Your task to perform on an android device: star an email in the gmail app Image 0: 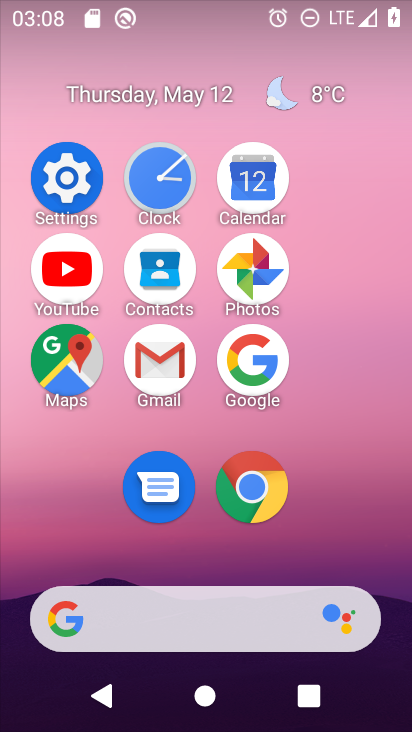
Step 0: click (177, 368)
Your task to perform on an android device: star an email in the gmail app Image 1: 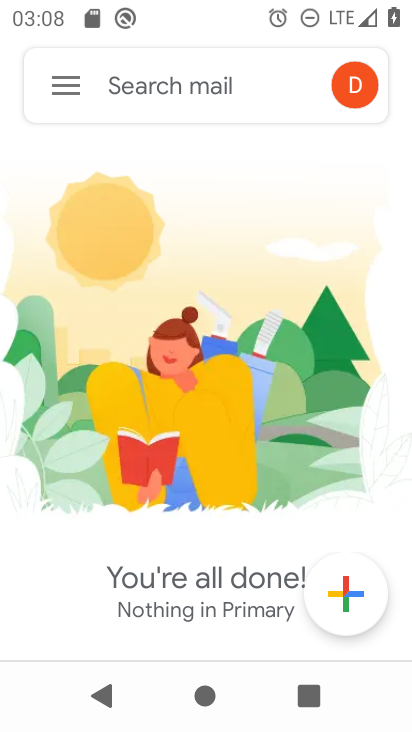
Step 1: click (56, 70)
Your task to perform on an android device: star an email in the gmail app Image 2: 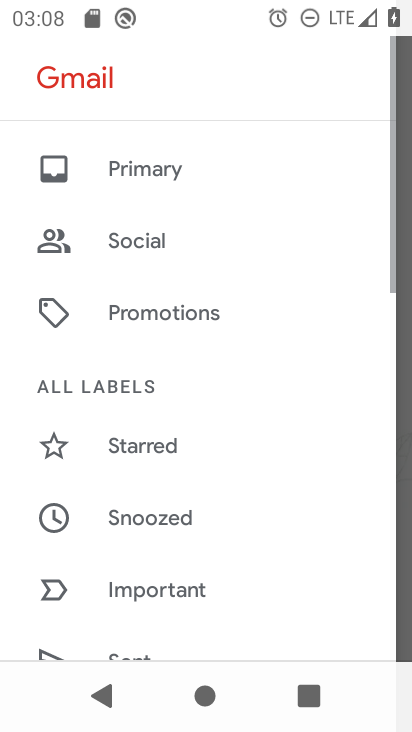
Step 2: drag from (243, 566) to (223, 178)
Your task to perform on an android device: star an email in the gmail app Image 3: 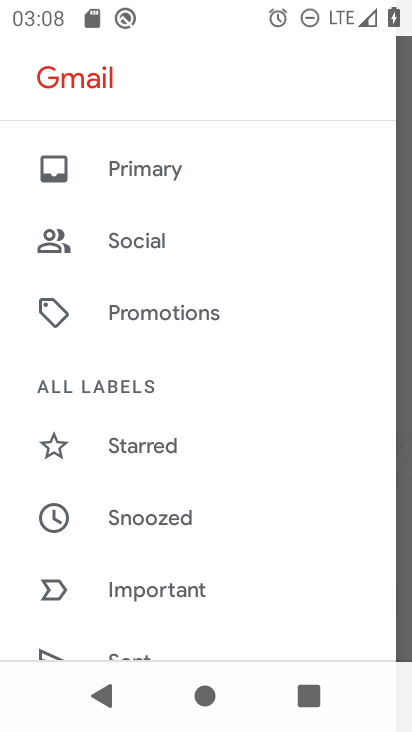
Step 3: drag from (201, 611) to (169, 217)
Your task to perform on an android device: star an email in the gmail app Image 4: 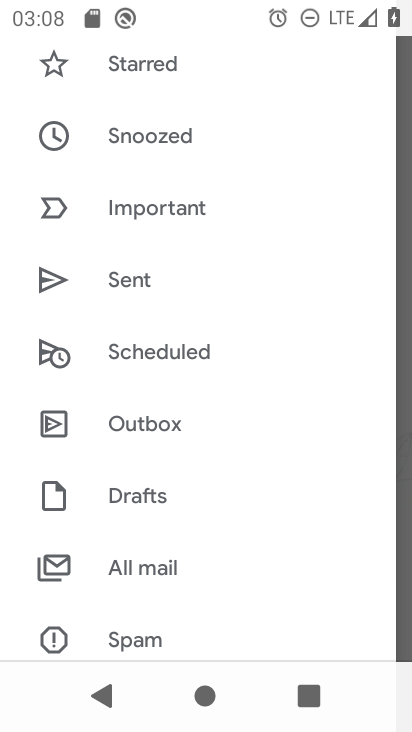
Step 4: click (188, 564)
Your task to perform on an android device: star an email in the gmail app Image 5: 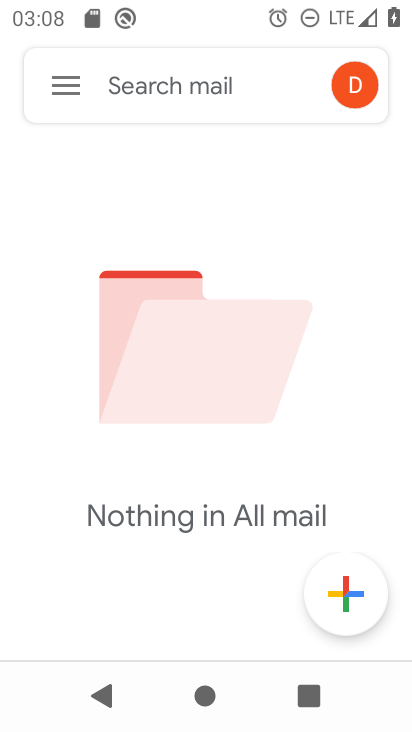
Step 5: task complete